Your task to perform on an android device: turn on the 24-hour format for clock Image 0: 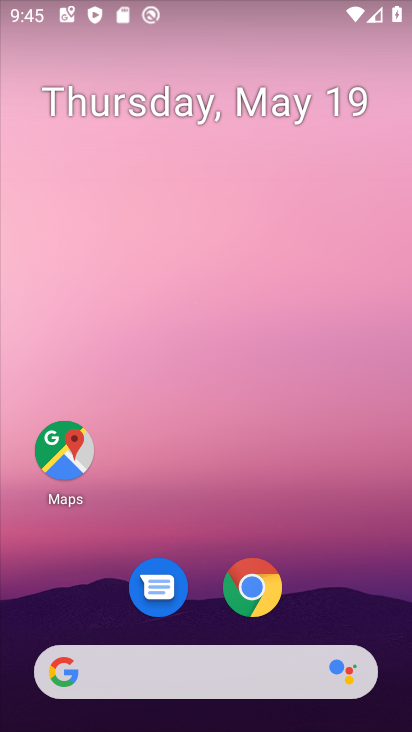
Step 0: click (398, 536)
Your task to perform on an android device: turn on the 24-hour format for clock Image 1: 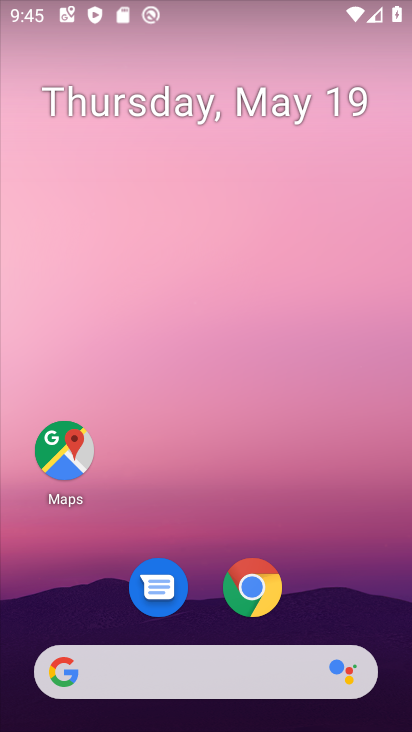
Step 1: drag from (243, 659) to (204, 164)
Your task to perform on an android device: turn on the 24-hour format for clock Image 2: 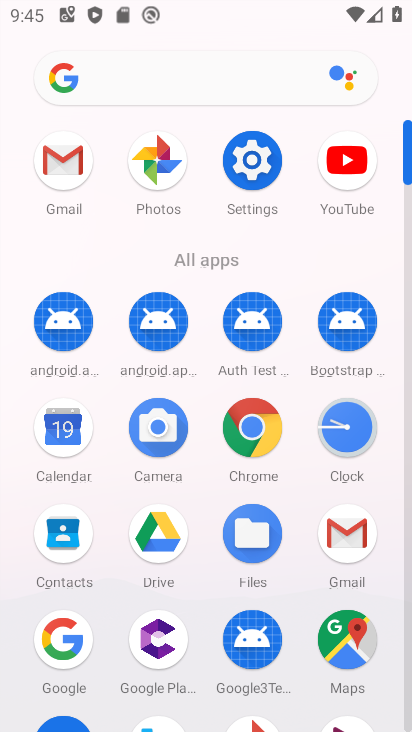
Step 2: drag from (226, 565) to (215, 46)
Your task to perform on an android device: turn on the 24-hour format for clock Image 3: 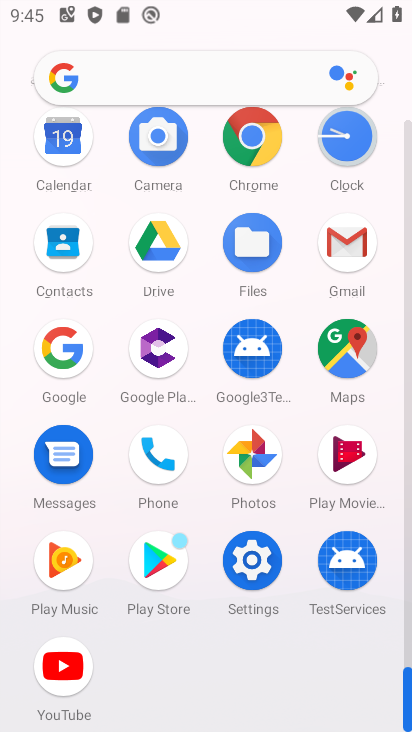
Step 3: click (264, 575)
Your task to perform on an android device: turn on the 24-hour format for clock Image 4: 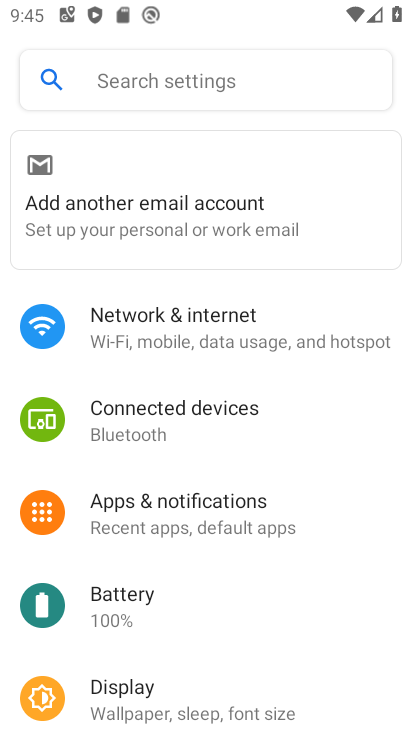
Step 4: drag from (183, 628) to (158, 85)
Your task to perform on an android device: turn on the 24-hour format for clock Image 5: 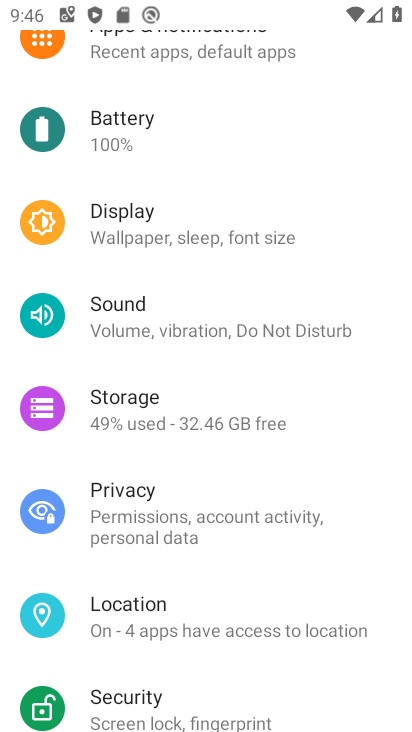
Step 5: drag from (192, 689) to (151, 126)
Your task to perform on an android device: turn on the 24-hour format for clock Image 6: 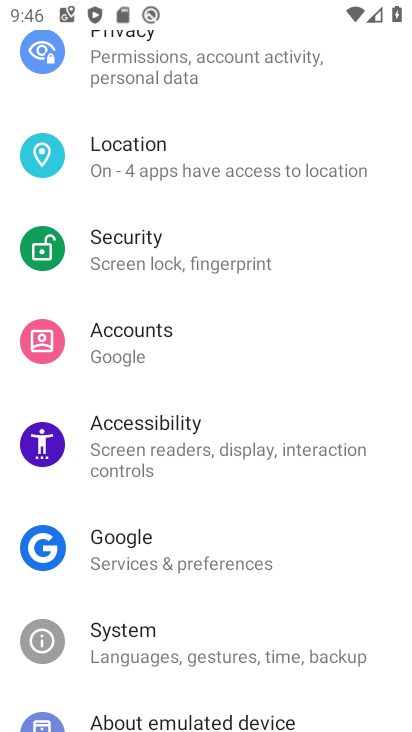
Step 6: drag from (203, 624) to (154, 102)
Your task to perform on an android device: turn on the 24-hour format for clock Image 7: 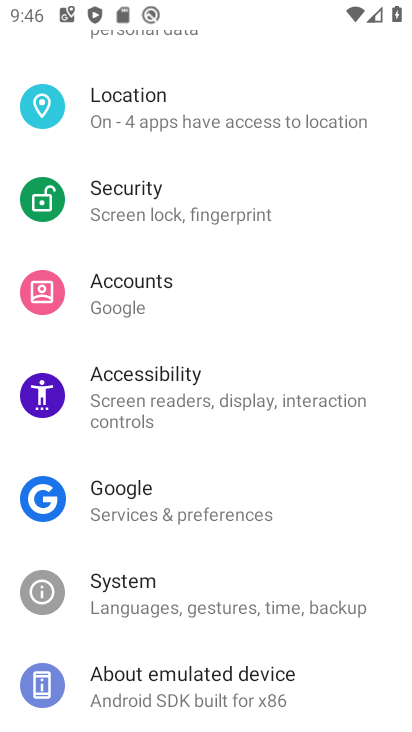
Step 7: click (183, 598)
Your task to perform on an android device: turn on the 24-hour format for clock Image 8: 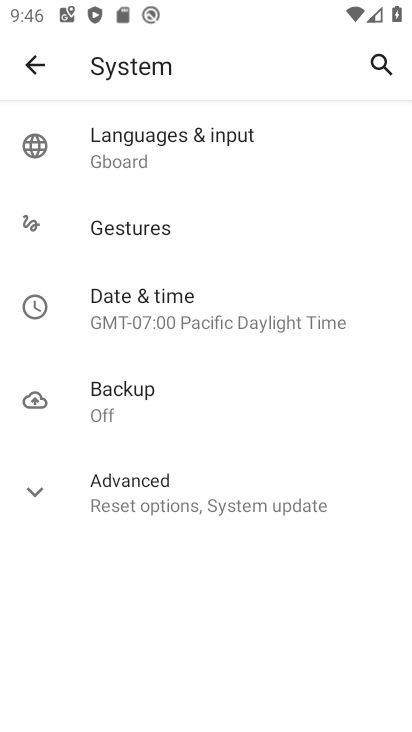
Step 8: click (136, 307)
Your task to perform on an android device: turn on the 24-hour format for clock Image 9: 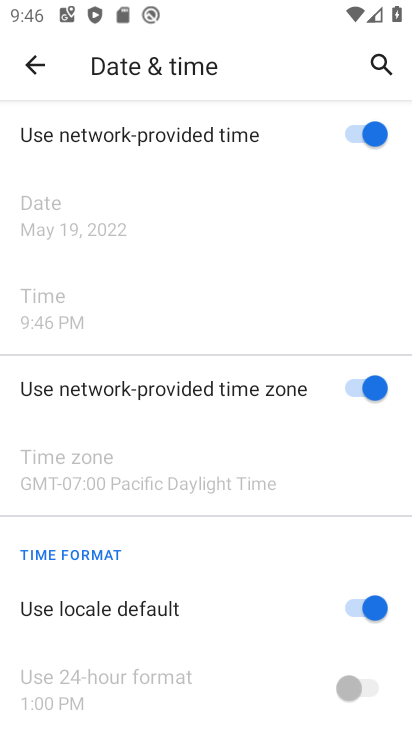
Step 9: drag from (236, 577) to (122, 31)
Your task to perform on an android device: turn on the 24-hour format for clock Image 10: 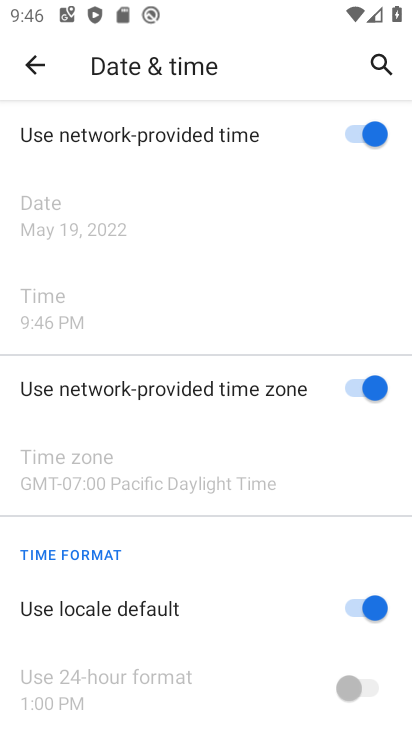
Step 10: click (372, 611)
Your task to perform on an android device: turn on the 24-hour format for clock Image 11: 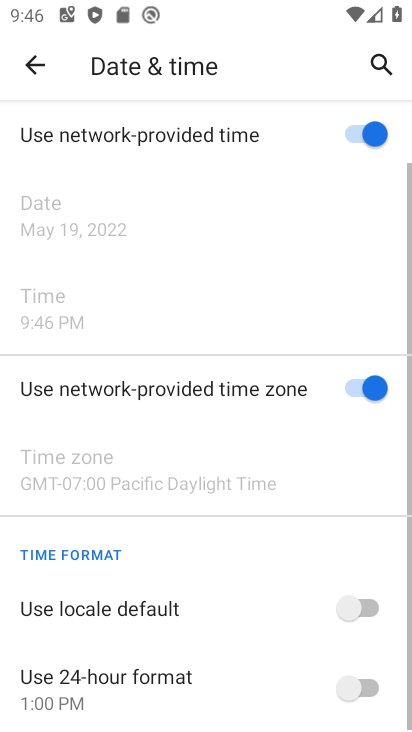
Step 11: click (372, 684)
Your task to perform on an android device: turn on the 24-hour format for clock Image 12: 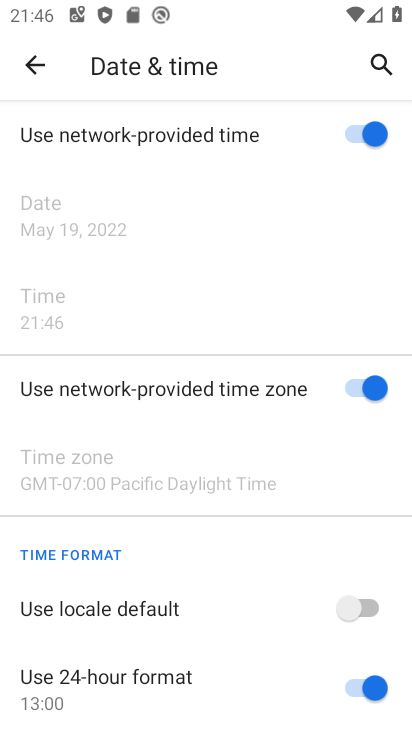
Step 12: task complete